Your task to perform on an android device: Open Maps and search for coffee Image 0: 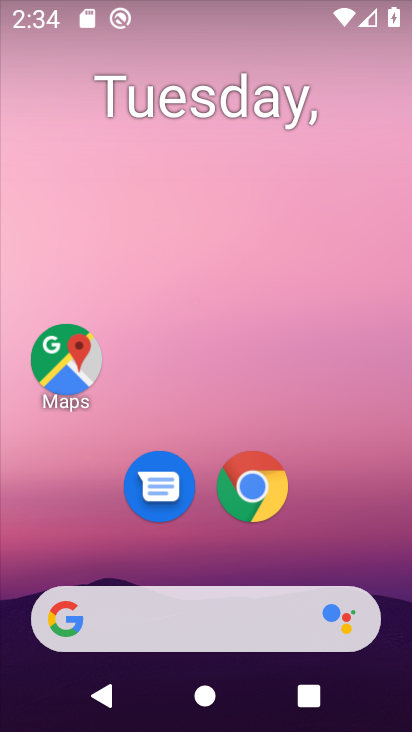
Step 0: click (69, 353)
Your task to perform on an android device: Open Maps and search for coffee Image 1: 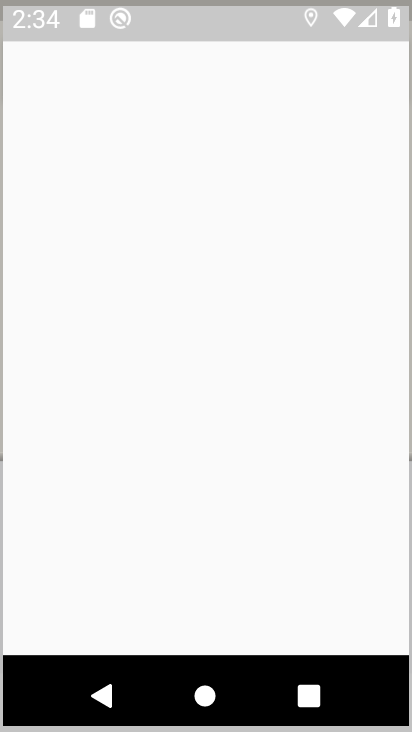
Step 1: click (372, 493)
Your task to perform on an android device: Open Maps and search for coffee Image 2: 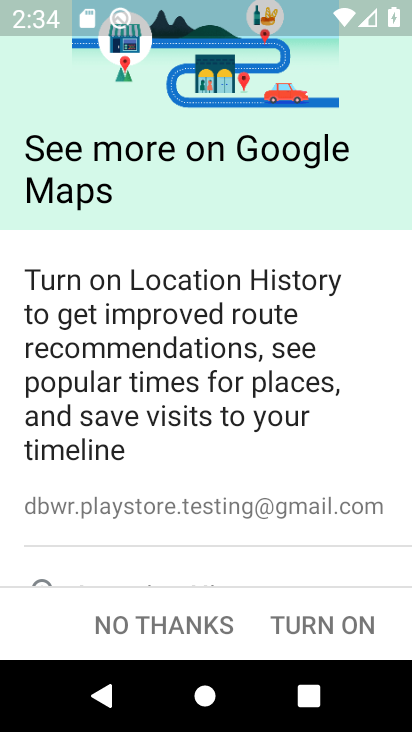
Step 2: click (332, 624)
Your task to perform on an android device: Open Maps and search for coffee Image 3: 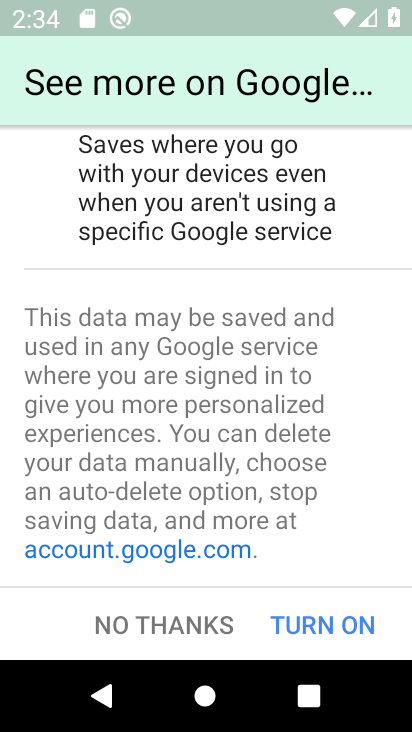
Step 3: click (326, 617)
Your task to perform on an android device: Open Maps and search for coffee Image 4: 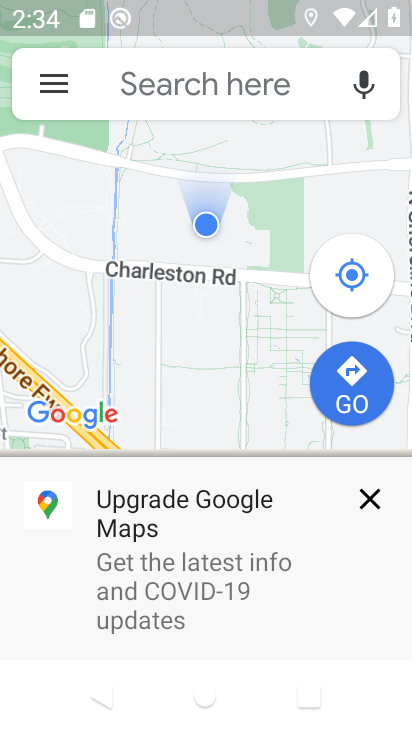
Step 4: click (370, 499)
Your task to perform on an android device: Open Maps and search for coffee Image 5: 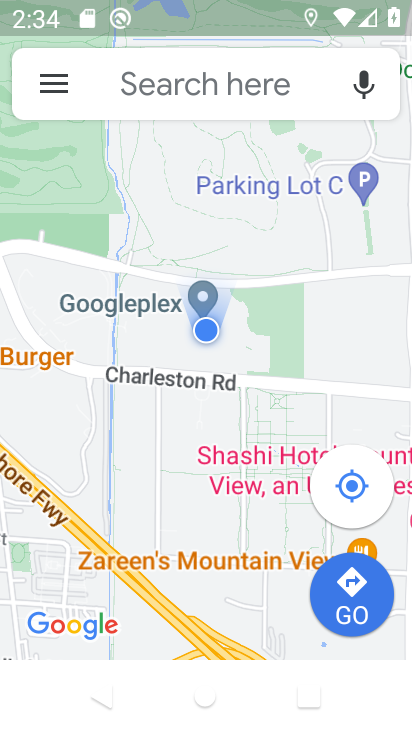
Step 5: click (154, 77)
Your task to perform on an android device: Open Maps and search for coffee Image 6: 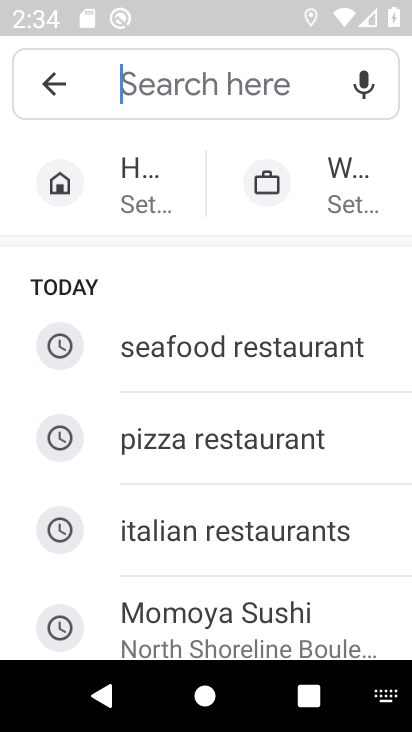
Step 6: type "coffee"
Your task to perform on an android device: Open Maps and search for coffee Image 7: 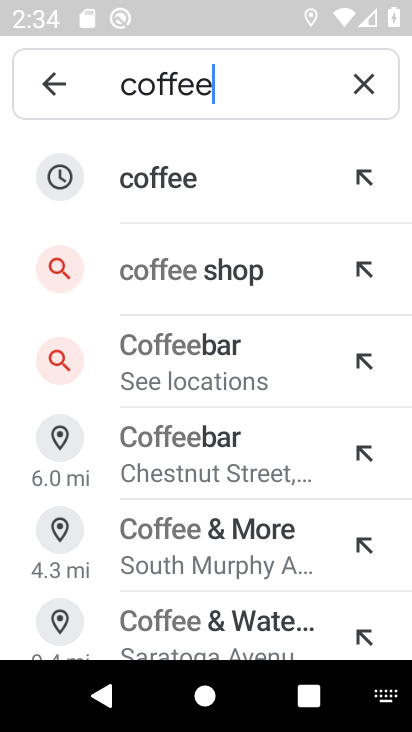
Step 7: click (213, 201)
Your task to perform on an android device: Open Maps and search for coffee Image 8: 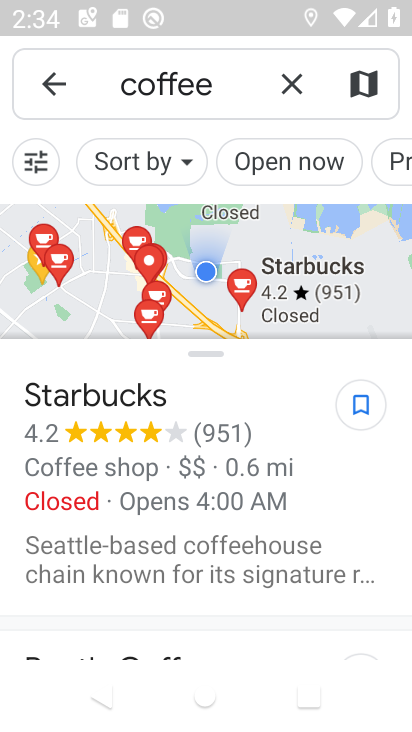
Step 8: task complete